Your task to perform on an android device: set the stopwatch Image 0: 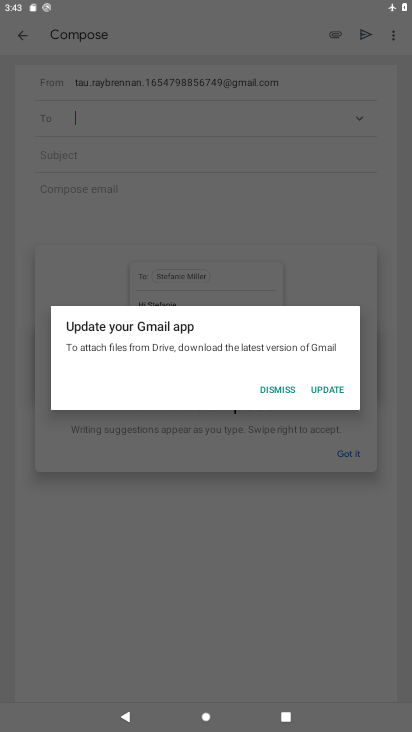
Step 0: press home button
Your task to perform on an android device: set the stopwatch Image 1: 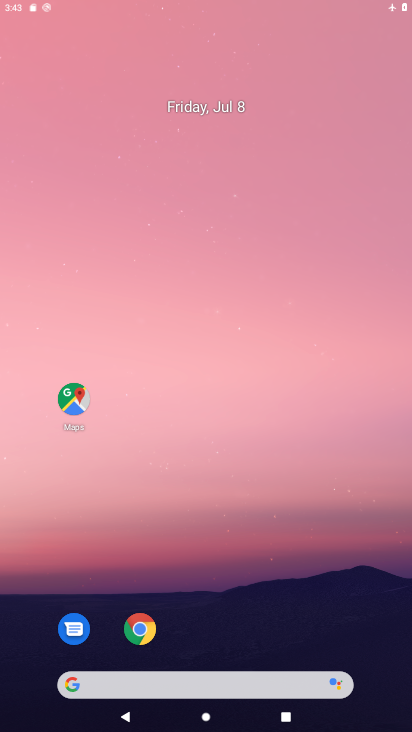
Step 1: drag from (235, 652) to (239, 270)
Your task to perform on an android device: set the stopwatch Image 2: 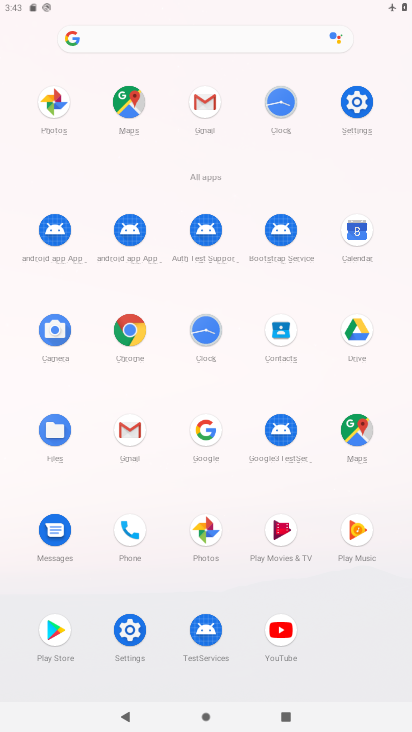
Step 2: click (204, 331)
Your task to perform on an android device: set the stopwatch Image 3: 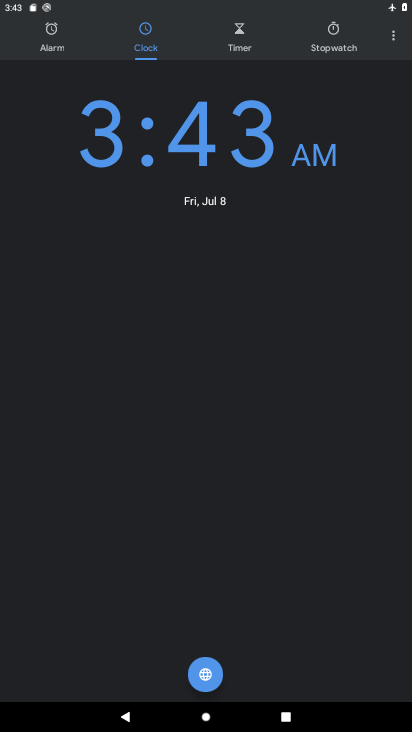
Step 3: click (311, 37)
Your task to perform on an android device: set the stopwatch Image 4: 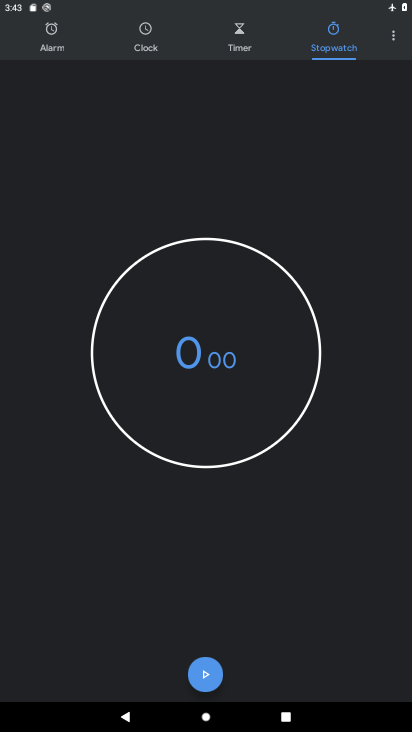
Step 4: task complete